Your task to perform on an android device: turn off wifi Image 0: 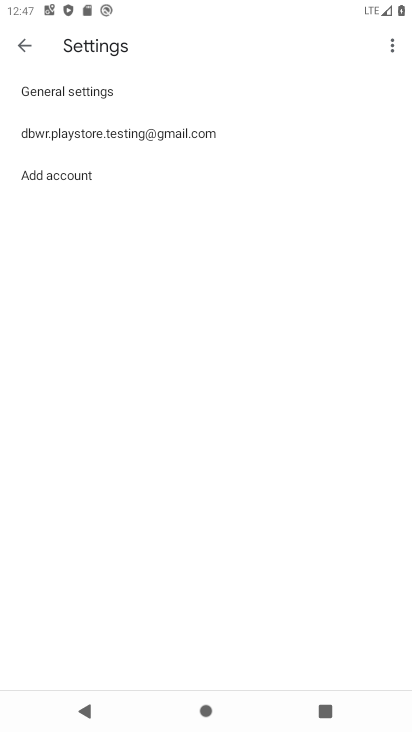
Step 0: press home button
Your task to perform on an android device: turn off wifi Image 1: 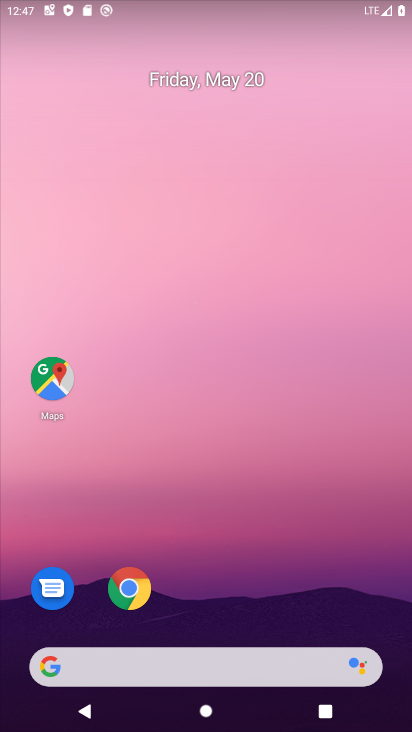
Step 1: drag from (393, 614) to (363, 75)
Your task to perform on an android device: turn off wifi Image 2: 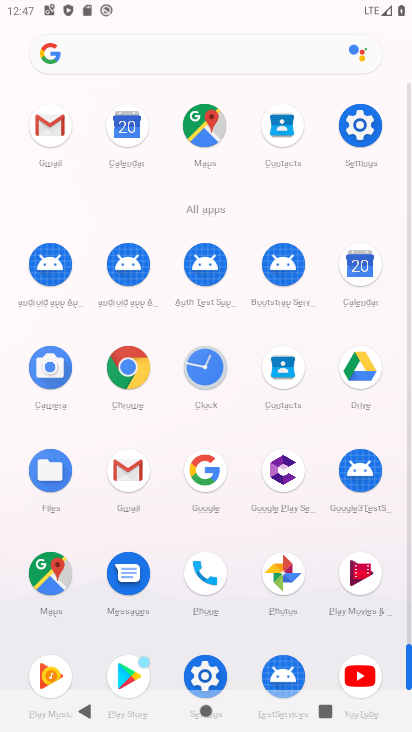
Step 2: click (203, 675)
Your task to perform on an android device: turn off wifi Image 3: 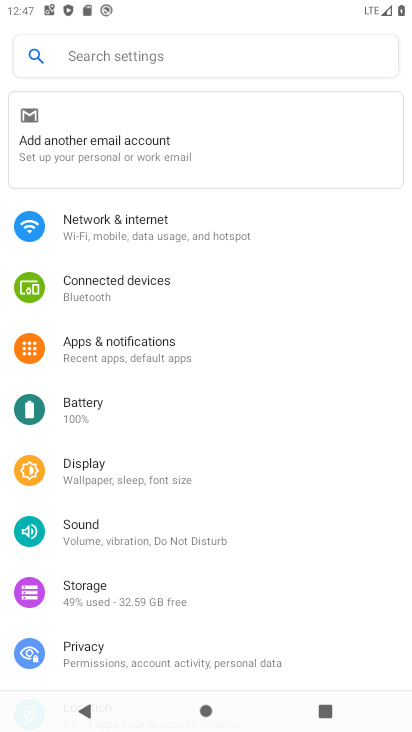
Step 3: click (130, 207)
Your task to perform on an android device: turn off wifi Image 4: 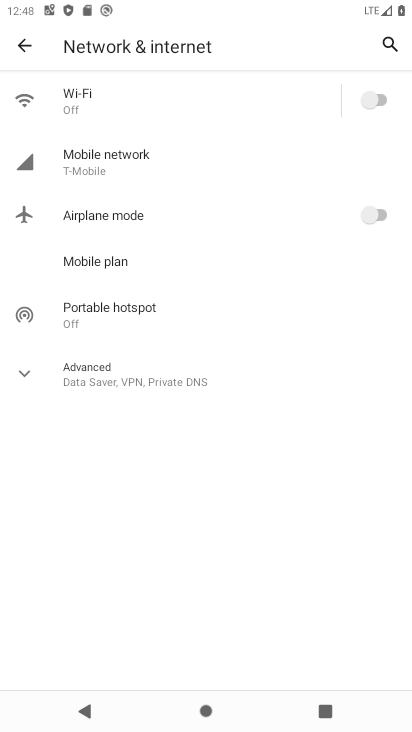
Step 4: task complete